Your task to perform on an android device: Go to eBay Image 0: 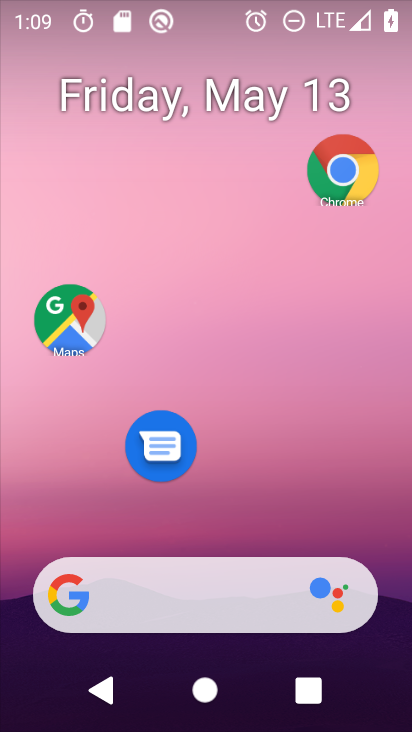
Step 0: drag from (299, 621) to (349, 42)
Your task to perform on an android device: Go to eBay Image 1: 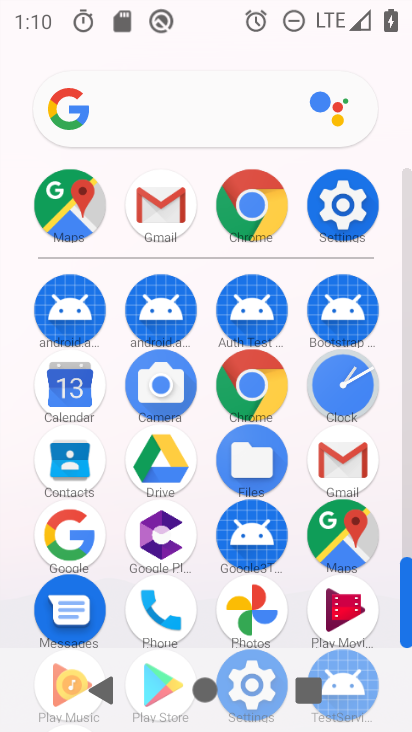
Step 1: click (255, 399)
Your task to perform on an android device: Go to eBay Image 2: 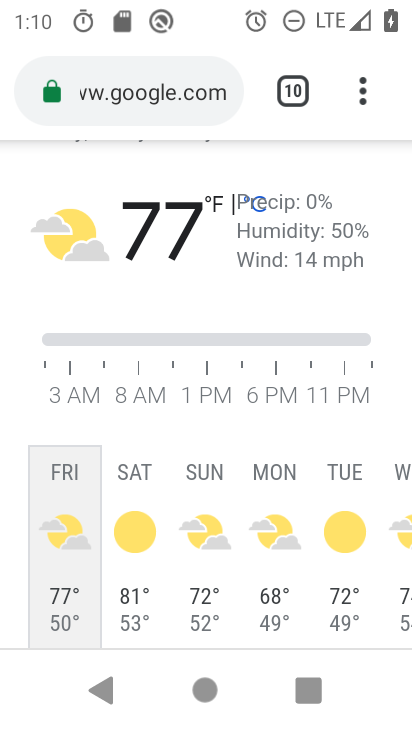
Step 2: click (203, 86)
Your task to perform on an android device: Go to eBay Image 3: 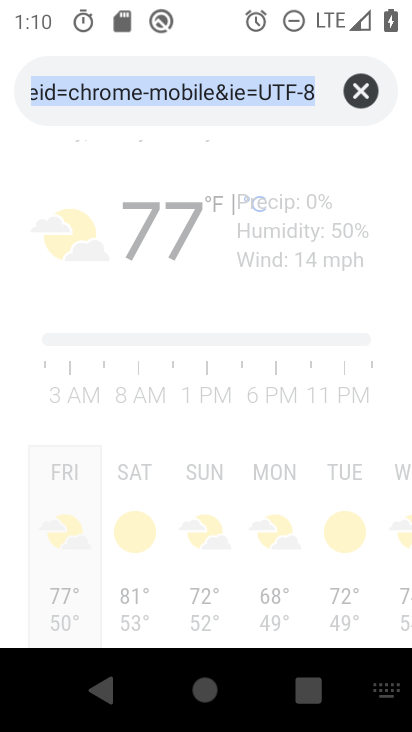
Step 3: click (353, 91)
Your task to perform on an android device: Go to eBay Image 4: 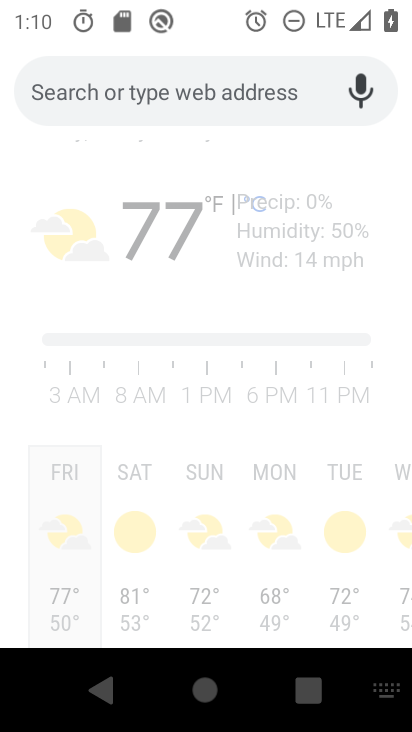
Step 4: type "ebay"
Your task to perform on an android device: Go to eBay Image 5: 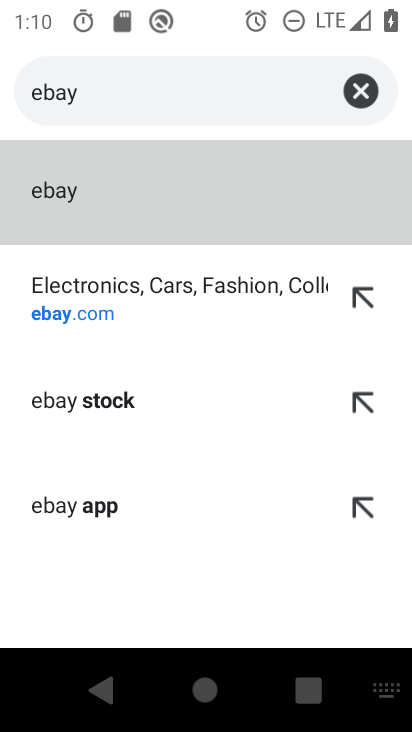
Step 5: click (287, 302)
Your task to perform on an android device: Go to eBay Image 6: 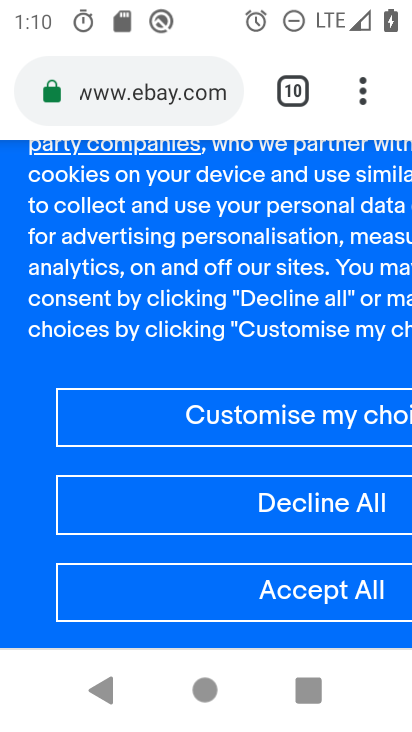
Step 6: task complete